Your task to perform on an android device: What's the weather today? Image 0: 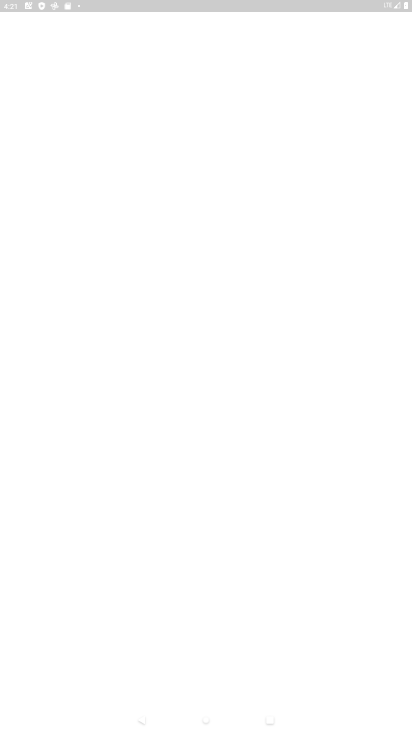
Step 0: press home button
Your task to perform on an android device: What's the weather today? Image 1: 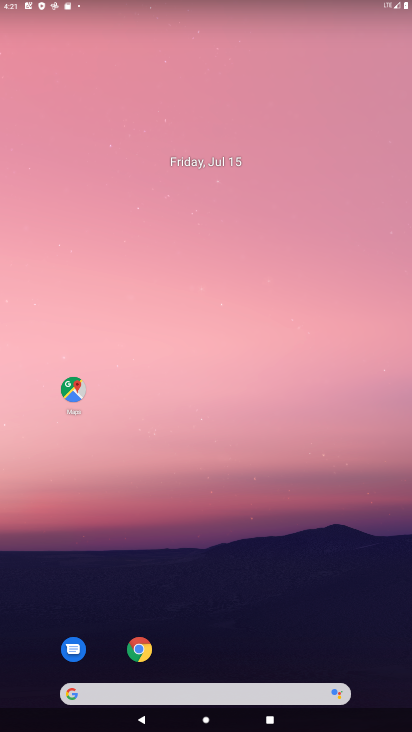
Step 1: drag from (341, 601) to (287, 2)
Your task to perform on an android device: What's the weather today? Image 2: 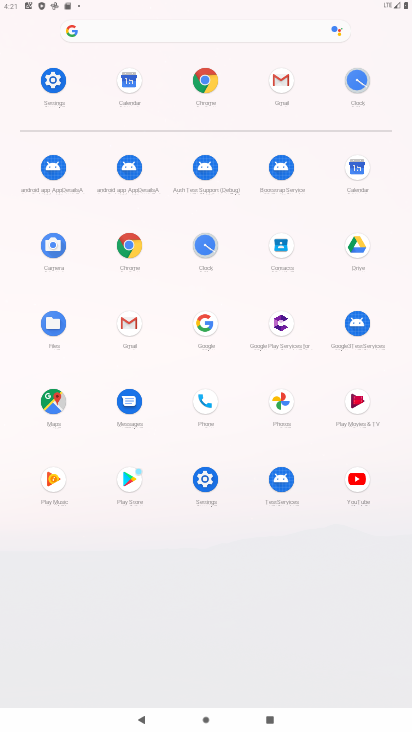
Step 2: click (209, 76)
Your task to perform on an android device: What's the weather today? Image 3: 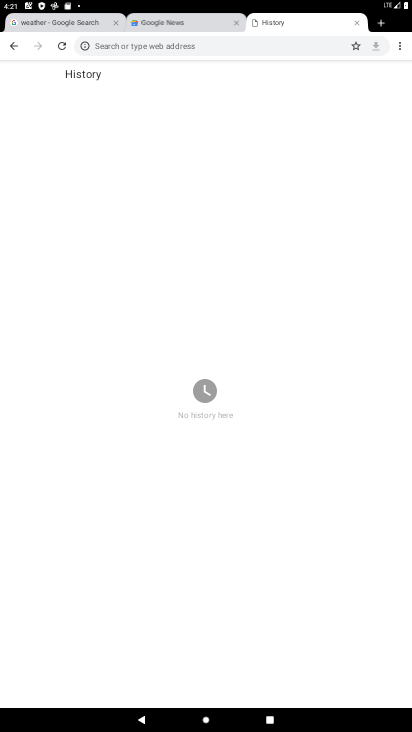
Step 3: click (119, 44)
Your task to perform on an android device: What's the weather today? Image 4: 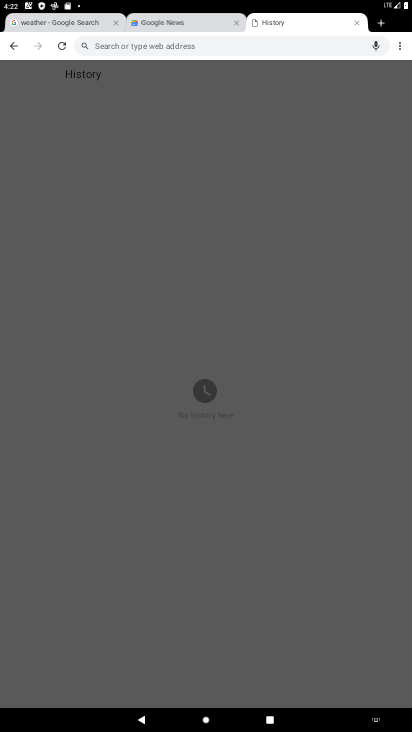
Step 4: type "weather"
Your task to perform on an android device: What's the weather today? Image 5: 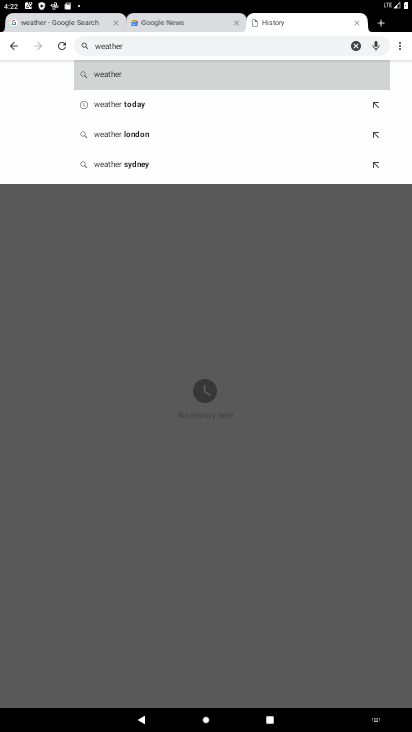
Step 5: click (106, 73)
Your task to perform on an android device: What's the weather today? Image 6: 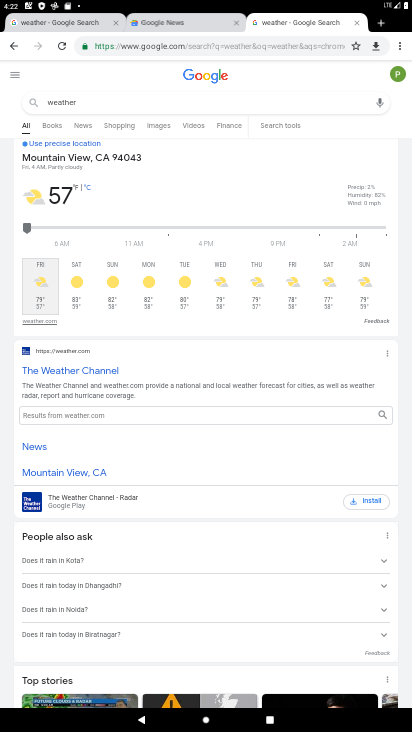
Step 6: task complete